Your task to perform on an android device: turn off improve location accuracy Image 0: 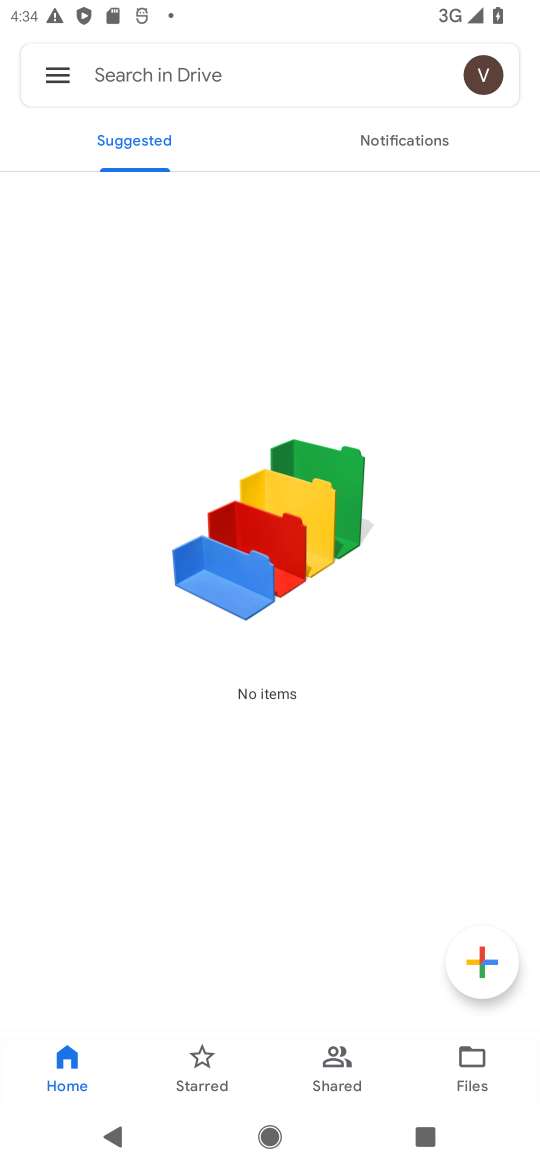
Step 0: press home button
Your task to perform on an android device: turn off improve location accuracy Image 1: 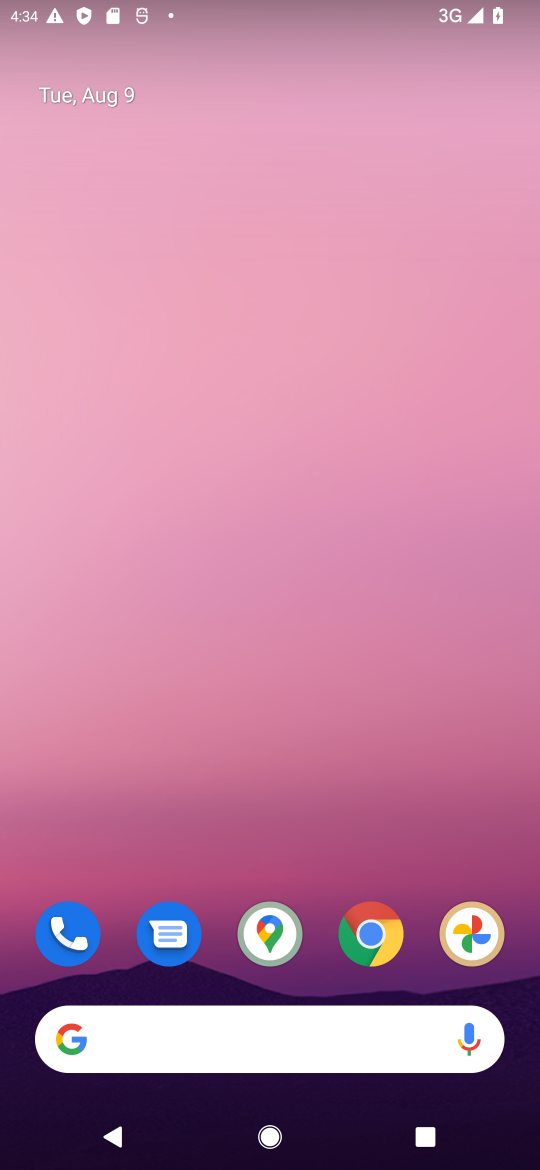
Step 1: drag from (312, 1001) to (341, 78)
Your task to perform on an android device: turn off improve location accuracy Image 2: 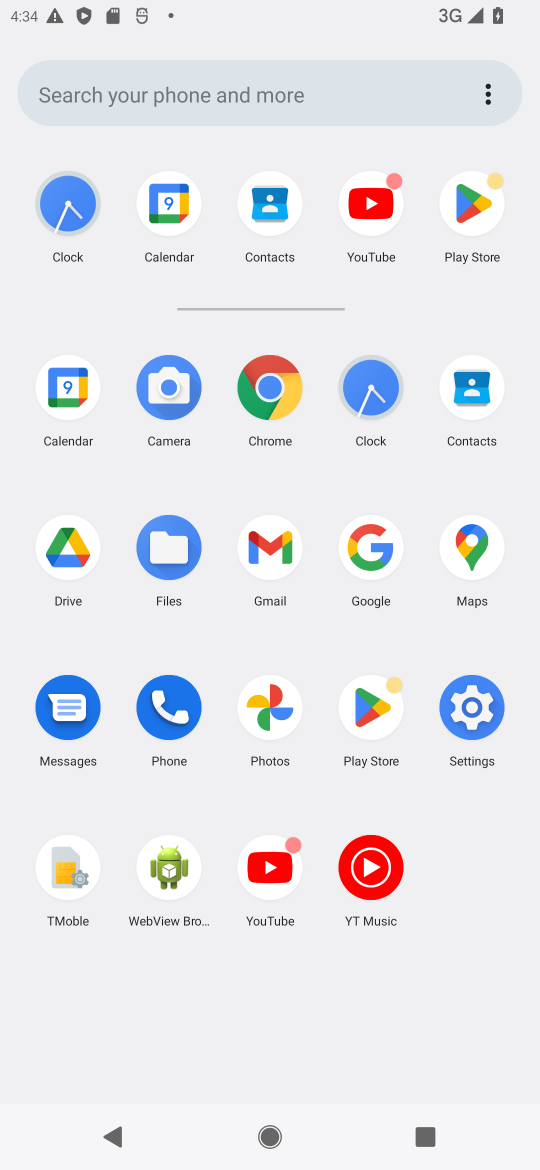
Step 2: click (472, 697)
Your task to perform on an android device: turn off improve location accuracy Image 3: 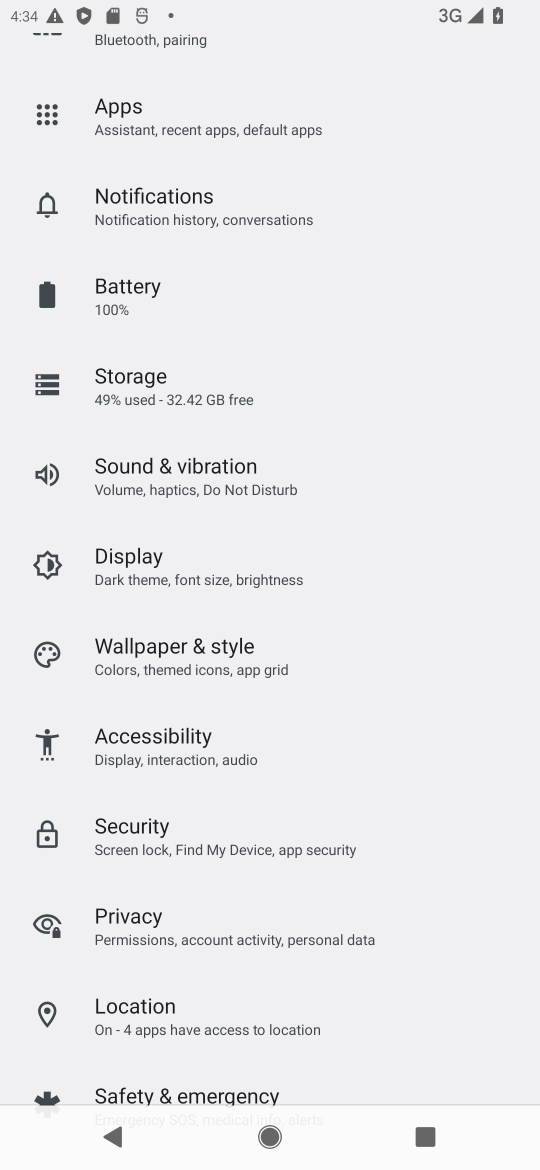
Step 3: click (312, 1039)
Your task to perform on an android device: turn off improve location accuracy Image 4: 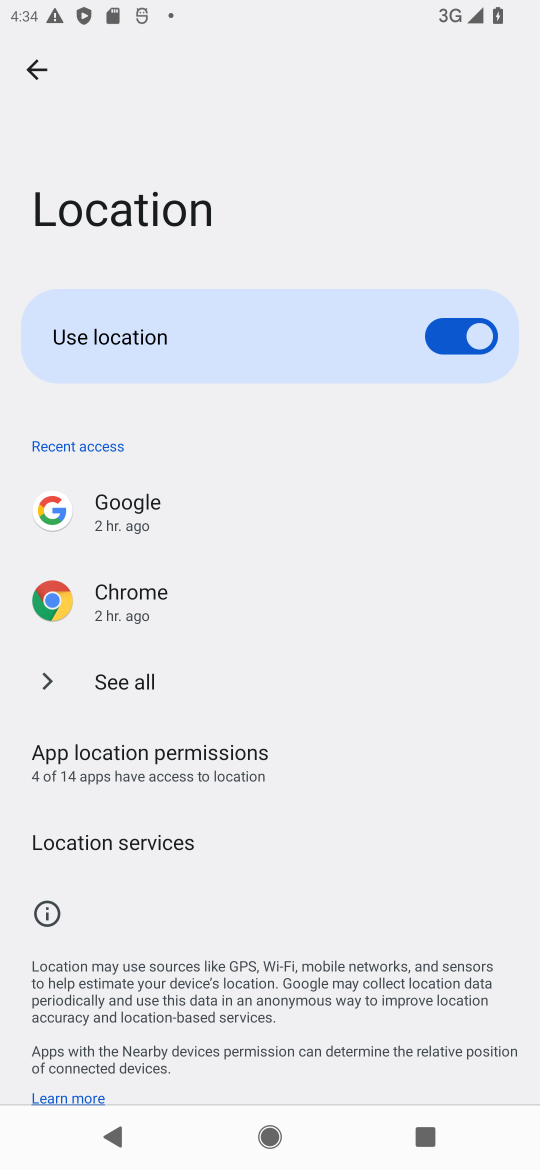
Step 4: click (111, 712)
Your task to perform on an android device: turn off improve location accuracy Image 5: 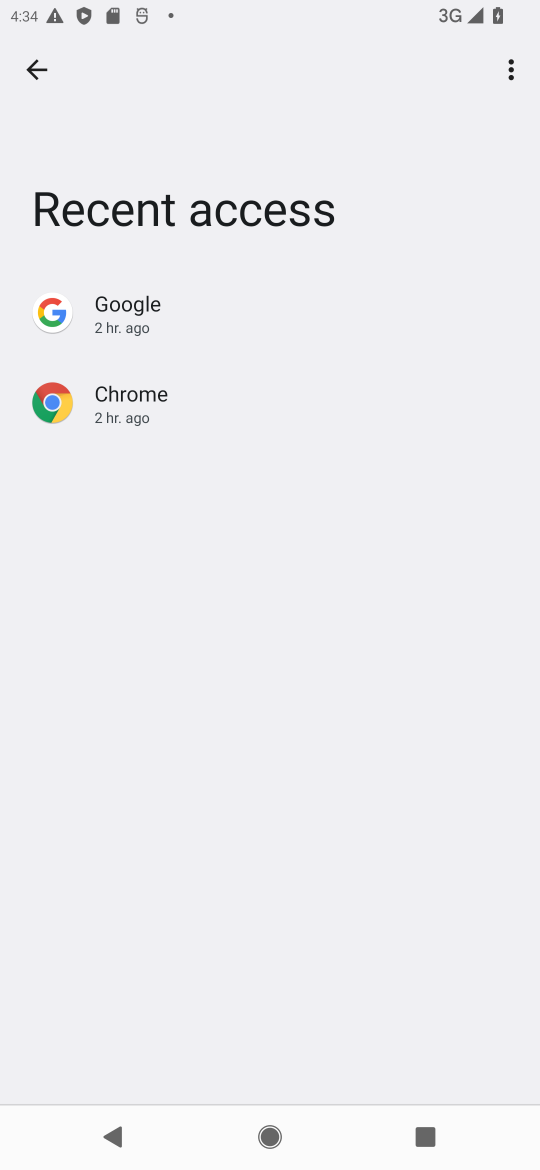
Step 5: click (33, 91)
Your task to perform on an android device: turn off improve location accuracy Image 6: 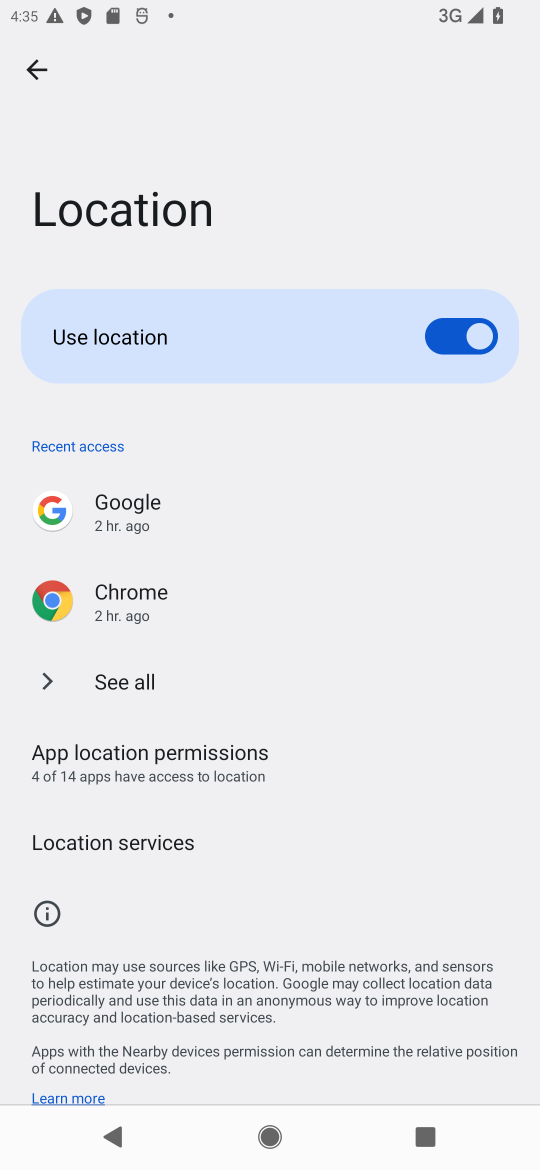
Step 6: task complete